Your task to perform on an android device: turn on priority inbox in the gmail app Image 0: 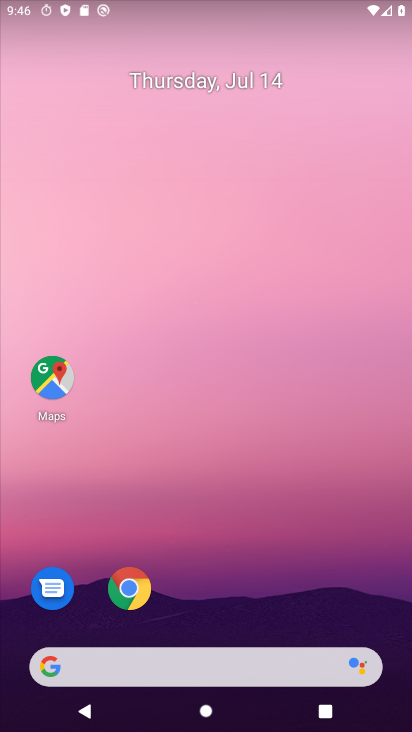
Step 0: drag from (183, 626) to (151, 195)
Your task to perform on an android device: turn on priority inbox in the gmail app Image 1: 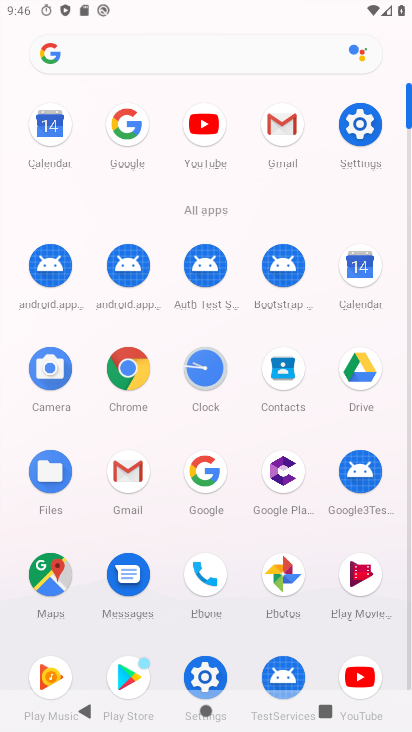
Step 1: click (293, 117)
Your task to perform on an android device: turn on priority inbox in the gmail app Image 2: 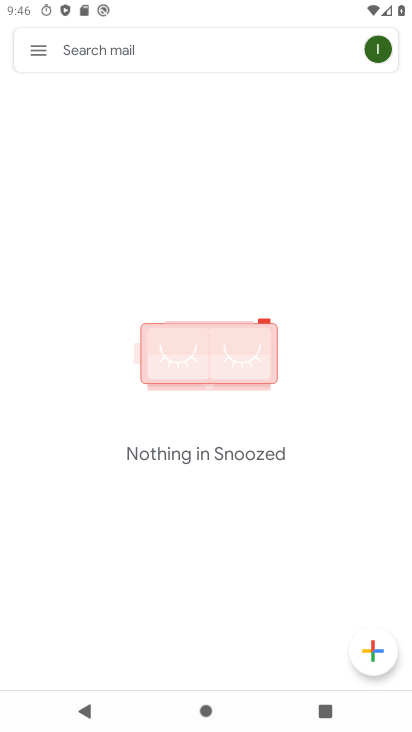
Step 2: click (38, 57)
Your task to perform on an android device: turn on priority inbox in the gmail app Image 3: 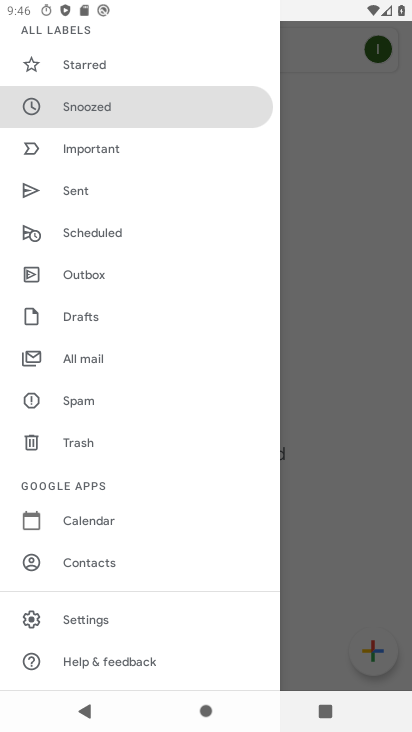
Step 3: click (74, 615)
Your task to perform on an android device: turn on priority inbox in the gmail app Image 4: 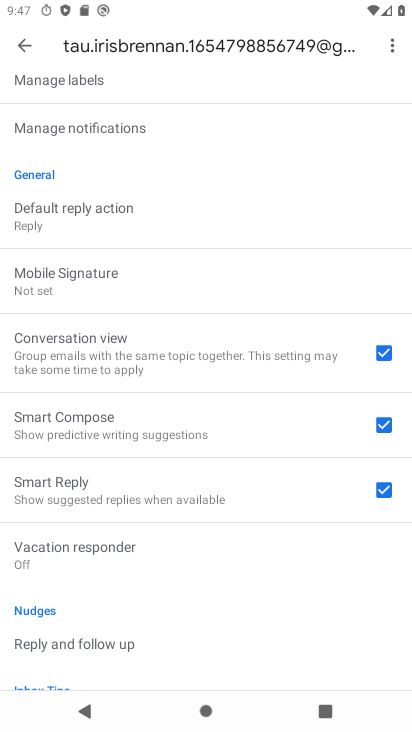
Step 4: drag from (68, 130) to (85, 561)
Your task to perform on an android device: turn on priority inbox in the gmail app Image 5: 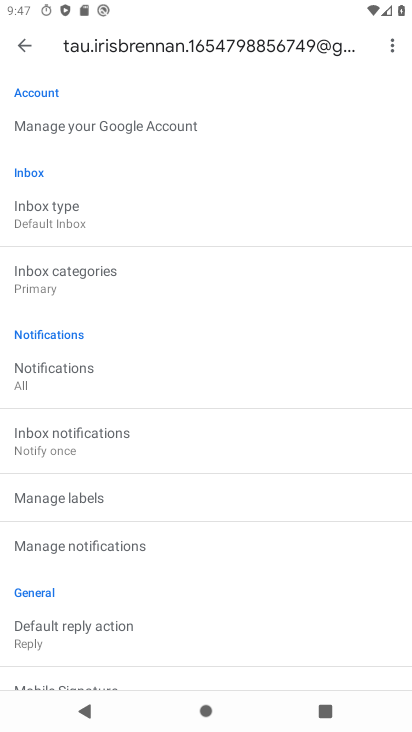
Step 5: click (28, 214)
Your task to perform on an android device: turn on priority inbox in the gmail app Image 6: 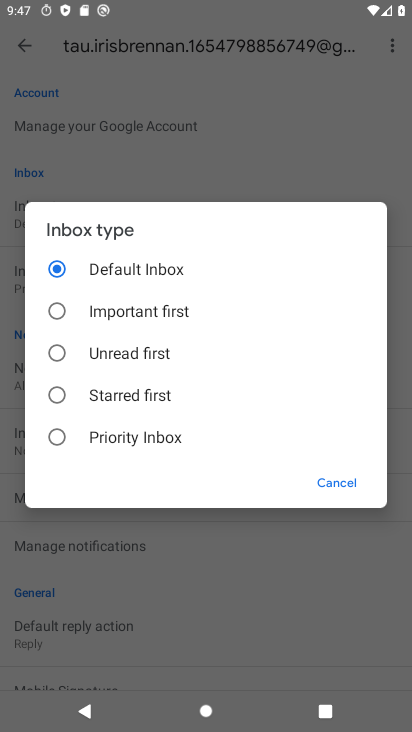
Step 6: click (108, 438)
Your task to perform on an android device: turn on priority inbox in the gmail app Image 7: 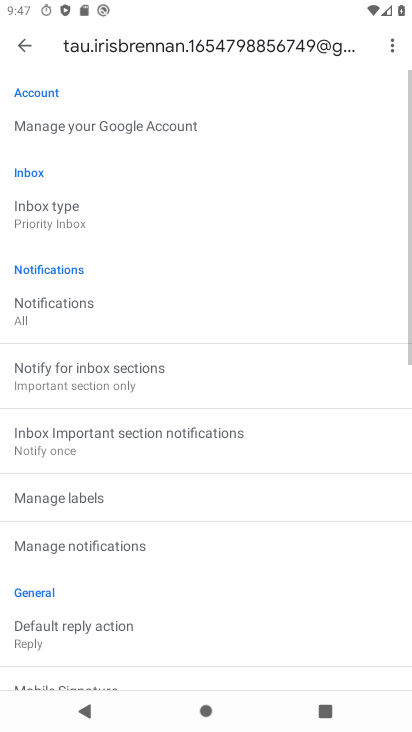
Step 7: task complete